Your task to perform on an android device: Open Android settings Image 0: 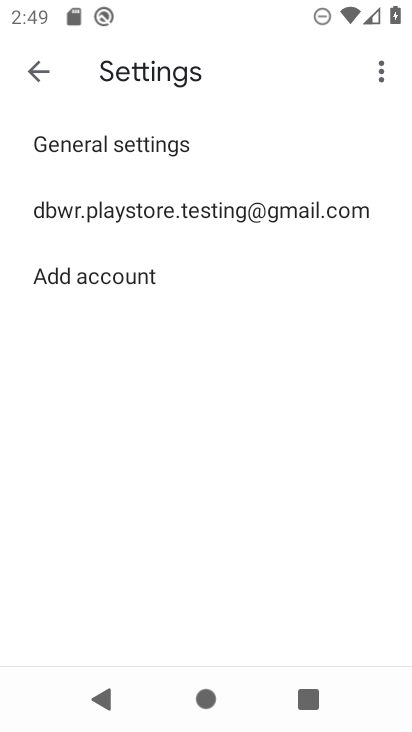
Step 0: press home button
Your task to perform on an android device: Open Android settings Image 1: 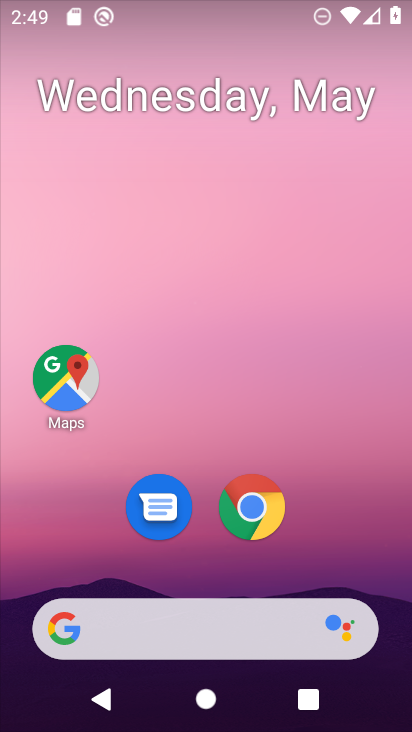
Step 1: drag from (211, 559) to (272, 137)
Your task to perform on an android device: Open Android settings Image 2: 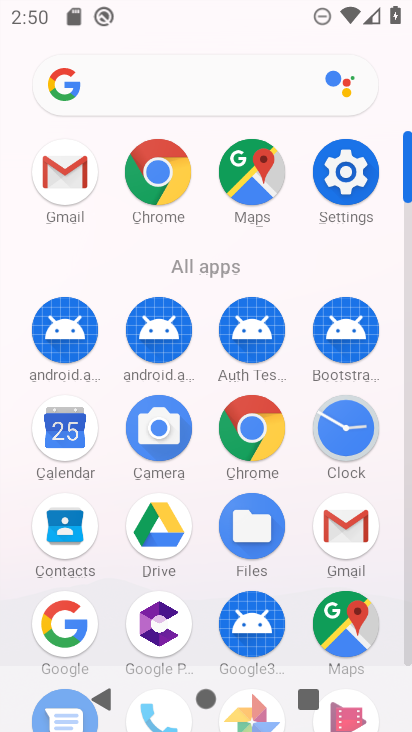
Step 2: click (346, 207)
Your task to perform on an android device: Open Android settings Image 3: 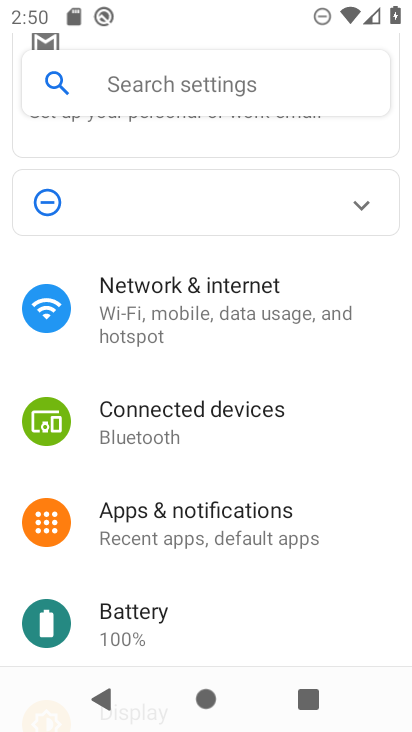
Step 3: drag from (211, 502) to (257, 146)
Your task to perform on an android device: Open Android settings Image 4: 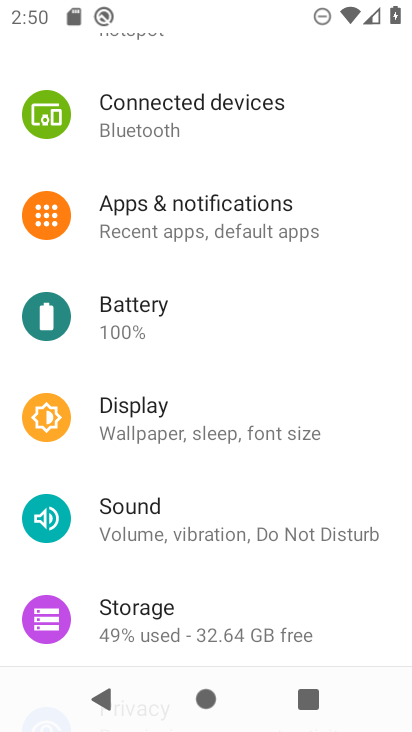
Step 4: drag from (206, 549) to (220, 256)
Your task to perform on an android device: Open Android settings Image 5: 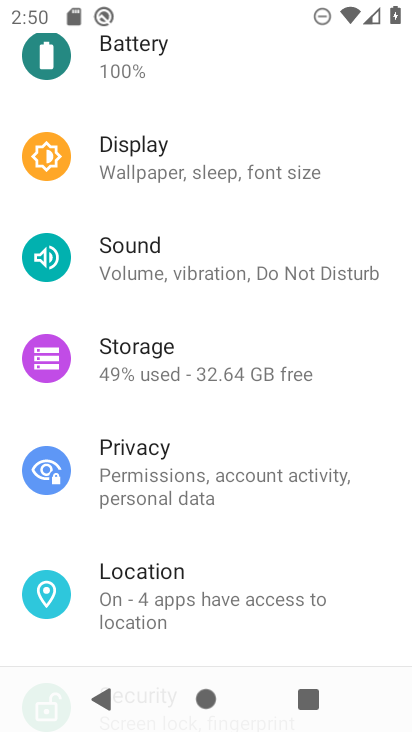
Step 5: drag from (200, 558) to (212, 272)
Your task to perform on an android device: Open Android settings Image 6: 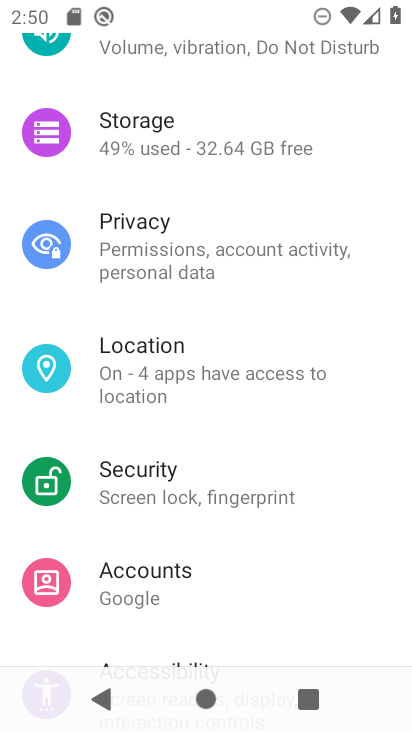
Step 6: drag from (171, 644) to (201, 265)
Your task to perform on an android device: Open Android settings Image 7: 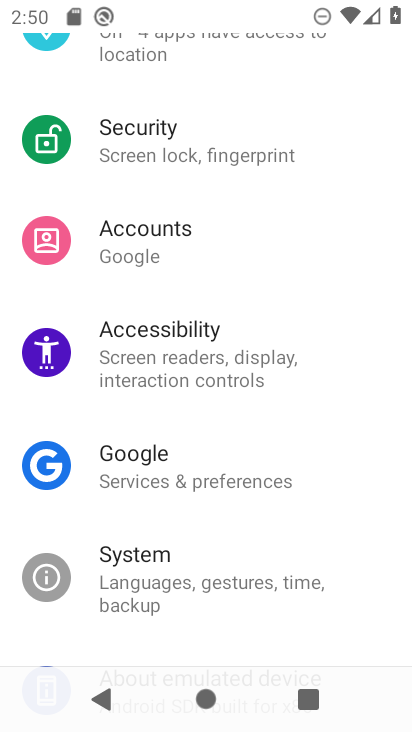
Step 7: drag from (200, 568) to (210, 376)
Your task to perform on an android device: Open Android settings Image 8: 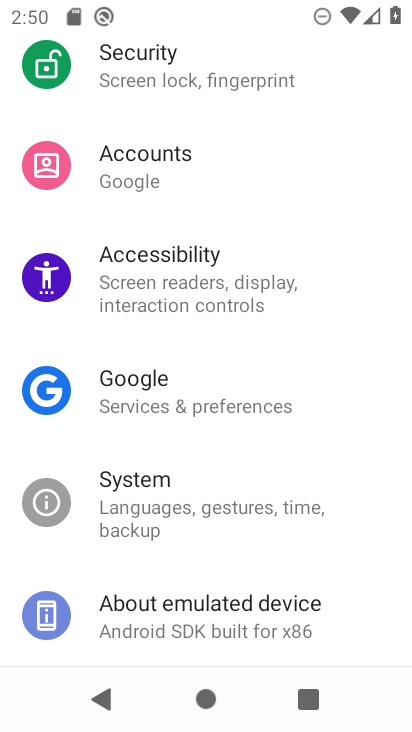
Step 8: drag from (169, 566) to (180, 489)
Your task to perform on an android device: Open Android settings Image 9: 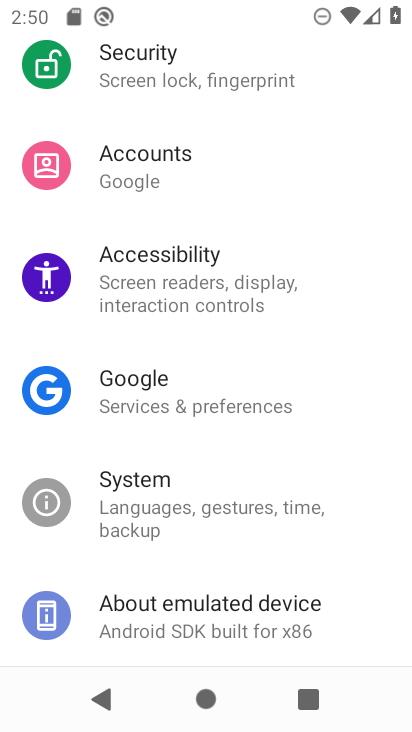
Step 9: click (193, 622)
Your task to perform on an android device: Open Android settings Image 10: 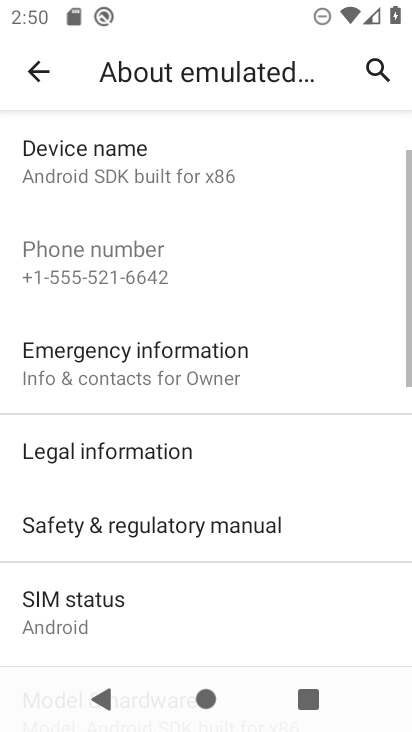
Step 10: drag from (159, 616) to (194, 457)
Your task to perform on an android device: Open Android settings Image 11: 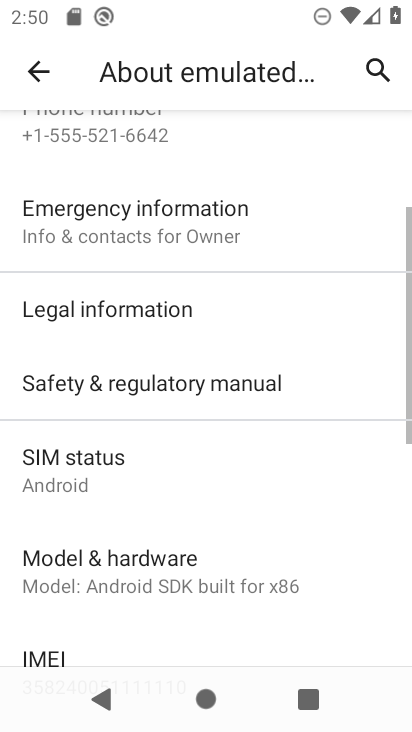
Step 11: drag from (132, 582) to (189, 232)
Your task to perform on an android device: Open Android settings Image 12: 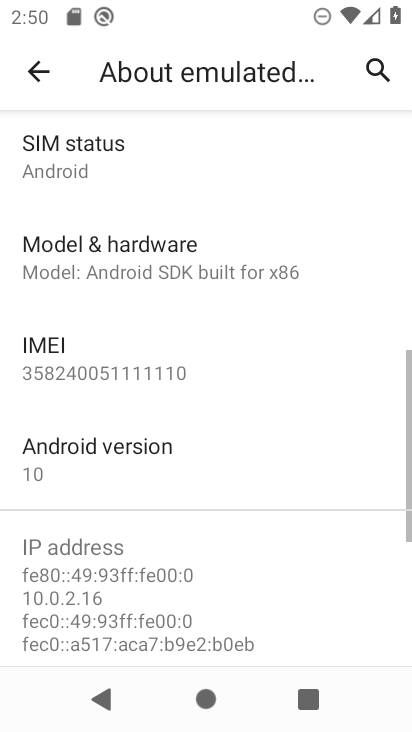
Step 12: click (147, 450)
Your task to perform on an android device: Open Android settings Image 13: 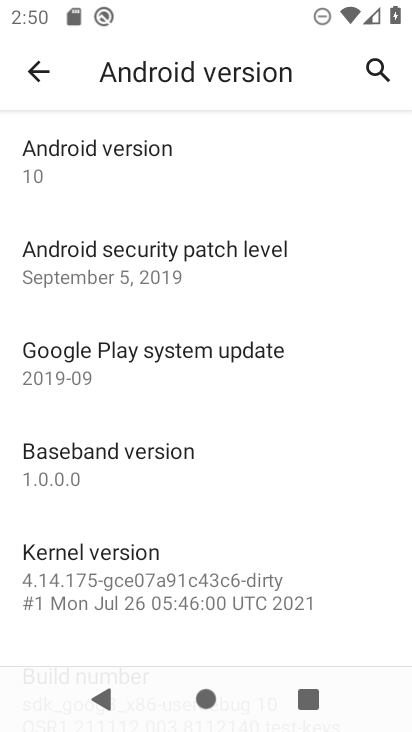
Step 13: task complete